Your task to perform on an android device: Open the phone app and click the voicemail tab. Image 0: 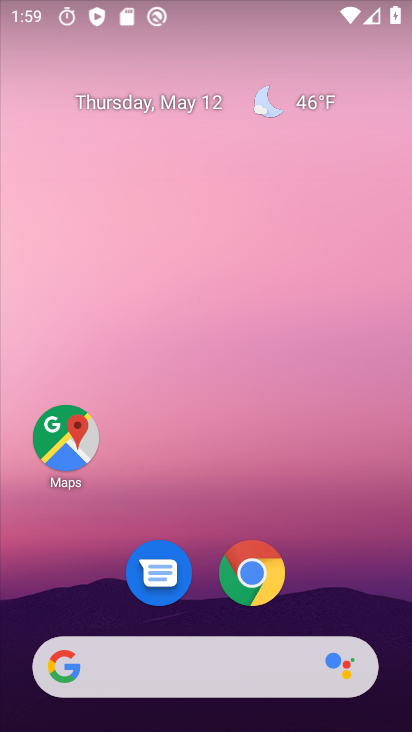
Step 0: drag from (204, 598) to (259, 87)
Your task to perform on an android device: Open the phone app and click the voicemail tab. Image 1: 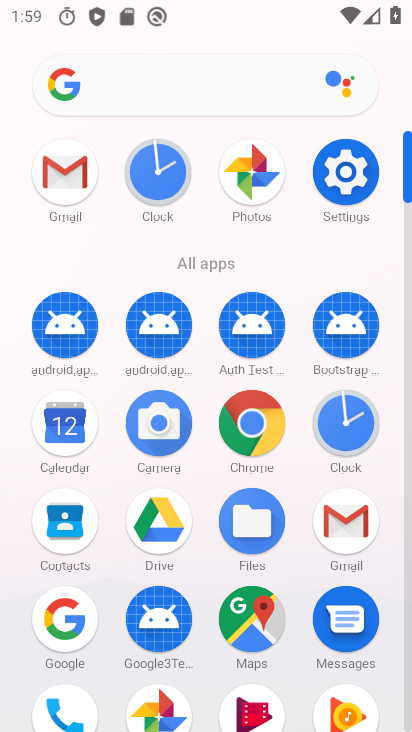
Step 1: click (74, 697)
Your task to perform on an android device: Open the phone app and click the voicemail tab. Image 2: 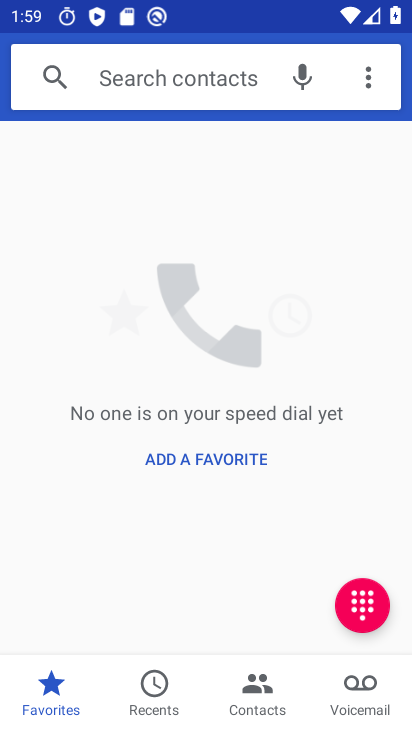
Step 2: click (372, 683)
Your task to perform on an android device: Open the phone app and click the voicemail tab. Image 3: 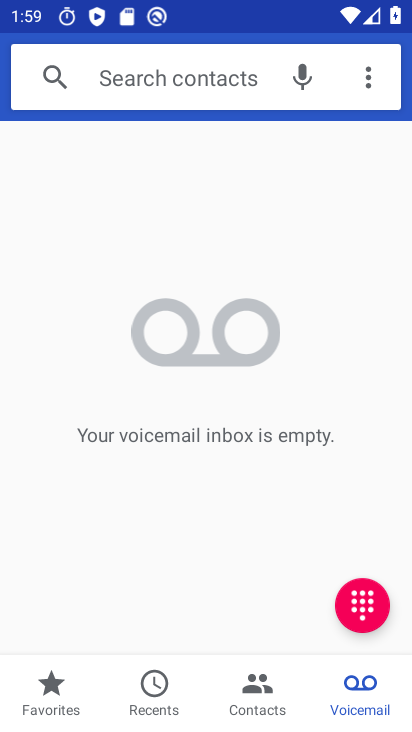
Step 3: task complete